Your task to perform on an android device: Add macbook pro 15 inch to the cart on amazon.com Image 0: 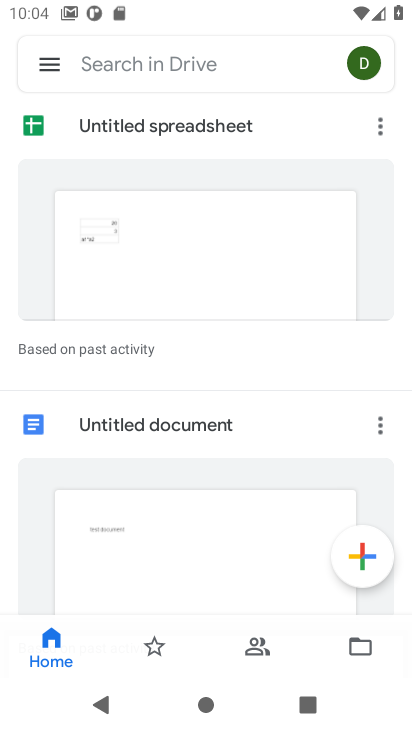
Step 0: press home button
Your task to perform on an android device: Add macbook pro 15 inch to the cart on amazon.com Image 1: 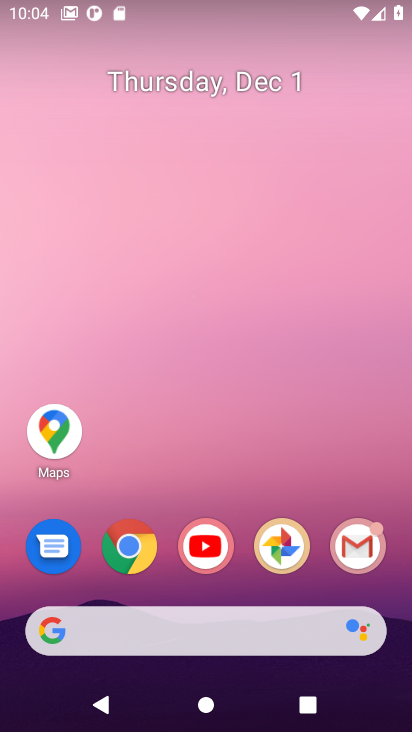
Step 1: click (121, 556)
Your task to perform on an android device: Add macbook pro 15 inch to the cart on amazon.com Image 2: 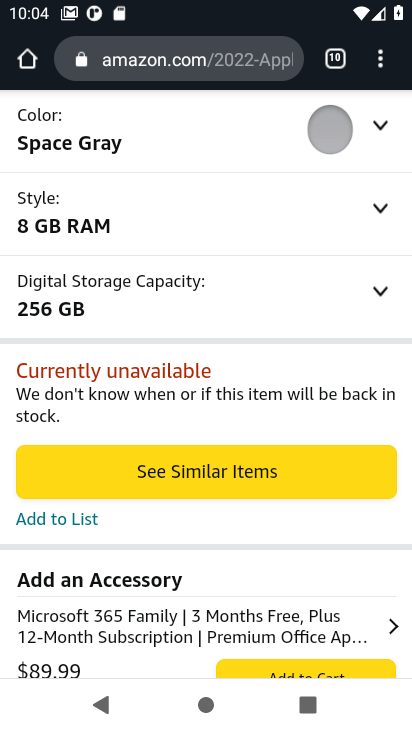
Step 2: drag from (203, 164) to (165, 500)
Your task to perform on an android device: Add macbook pro 15 inch to the cart on amazon.com Image 3: 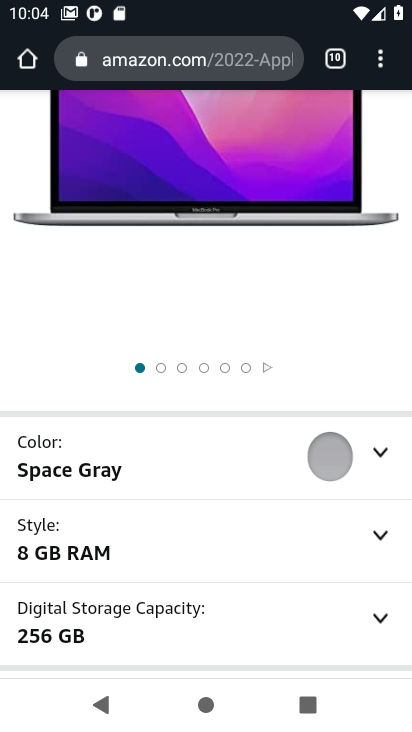
Step 3: drag from (194, 194) to (140, 565)
Your task to perform on an android device: Add macbook pro 15 inch to the cart on amazon.com Image 4: 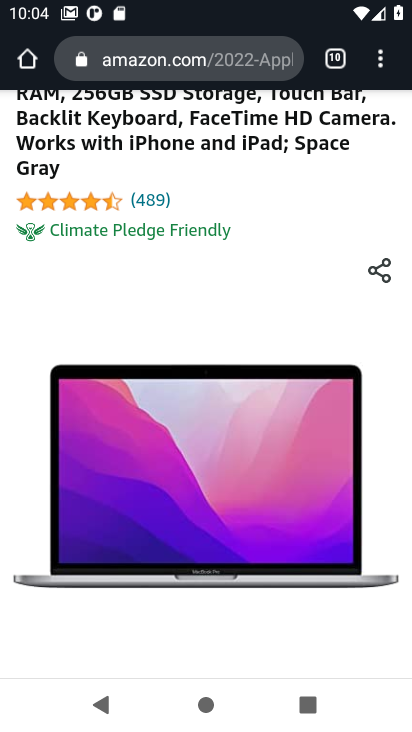
Step 4: drag from (162, 260) to (138, 473)
Your task to perform on an android device: Add macbook pro 15 inch to the cart on amazon.com Image 5: 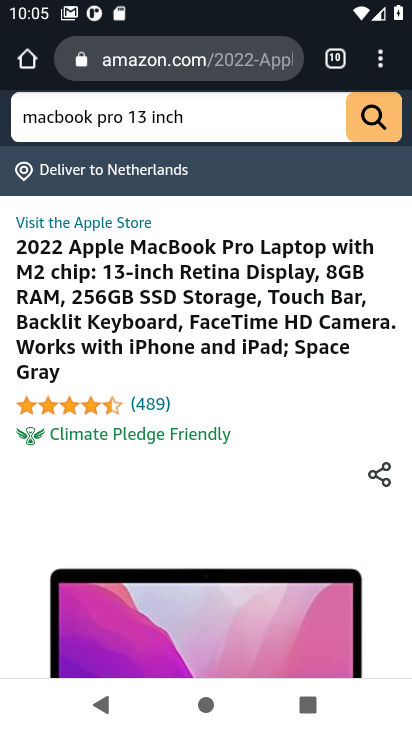
Step 5: drag from (125, 196) to (92, 383)
Your task to perform on an android device: Add macbook pro 15 inch to the cart on amazon.com Image 6: 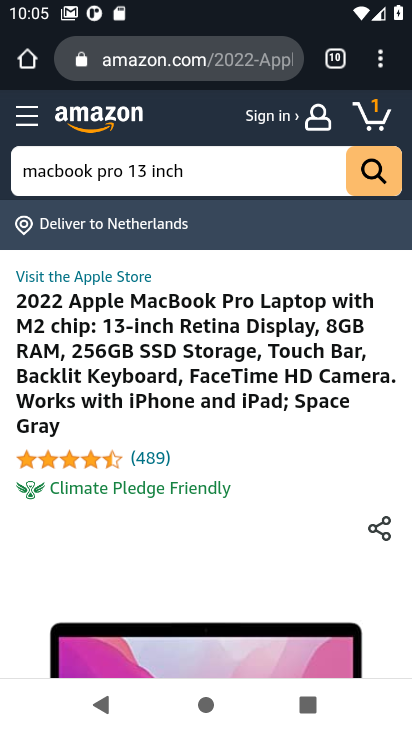
Step 6: click (201, 177)
Your task to perform on an android device: Add macbook pro 15 inch to the cart on amazon.com Image 7: 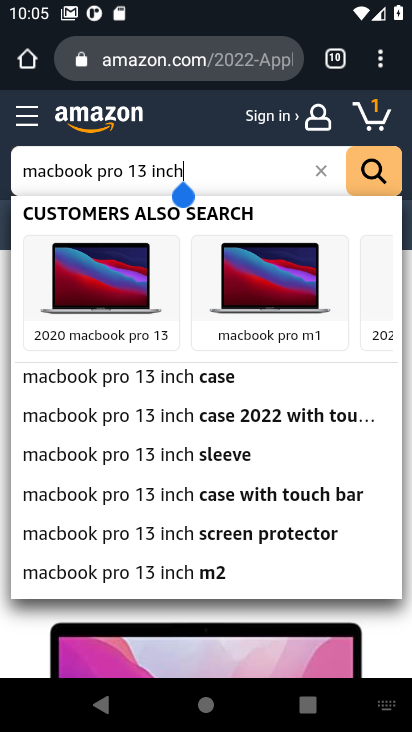
Step 7: click (322, 174)
Your task to perform on an android device: Add macbook pro 15 inch to the cart on amazon.com Image 8: 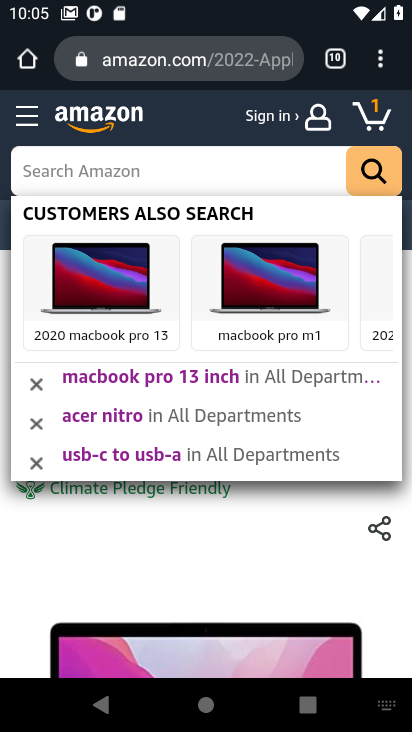
Step 8: type "macbook pro 15 inch"
Your task to perform on an android device: Add macbook pro 15 inch to the cart on amazon.com Image 9: 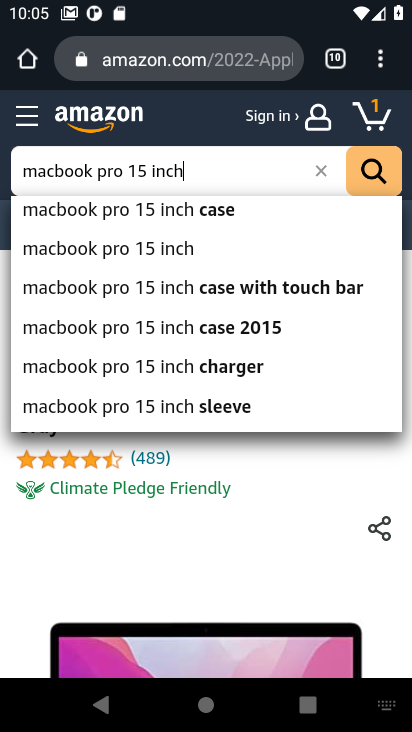
Step 9: click (118, 251)
Your task to perform on an android device: Add macbook pro 15 inch to the cart on amazon.com Image 10: 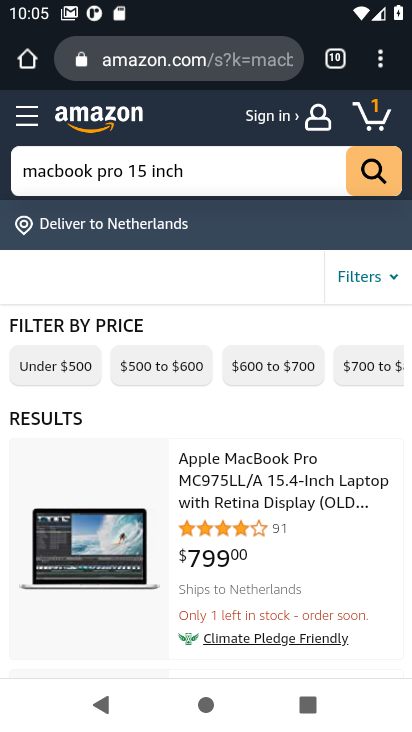
Step 10: drag from (138, 494) to (138, 341)
Your task to perform on an android device: Add macbook pro 15 inch to the cart on amazon.com Image 11: 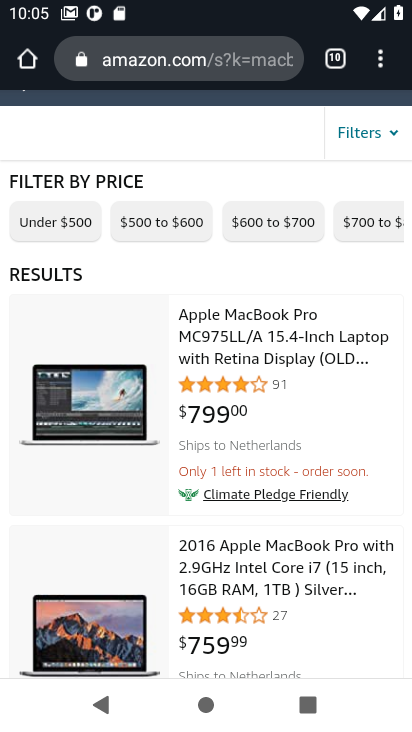
Step 11: click (245, 584)
Your task to perform on an android device: Add macbook pro 15 inch to the cart on amazon.com Image 12: 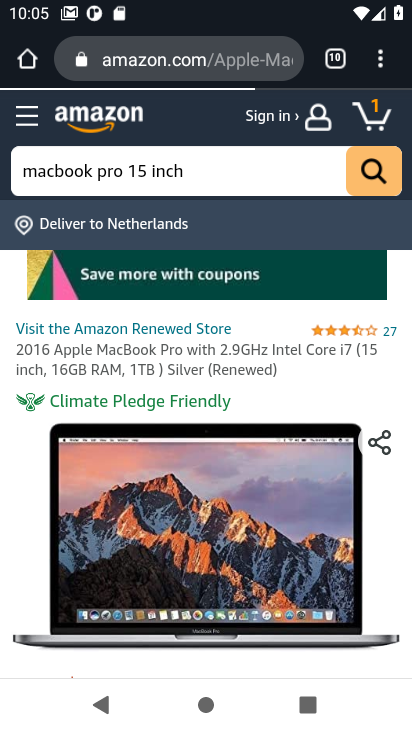
Step 12: drag from (245, 585) to (197, 141)
Your task to perform on an android device: Add macbook pro 15 inch to the cart on amazon.com Image 13: 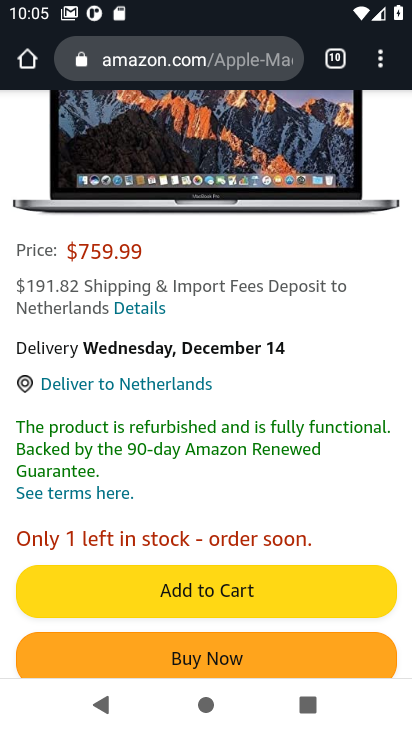
Step 13: click (188, 588)
Your task to perform on an android device: Add macbook pro 15 inch to the cart on amazon.com Image 14: 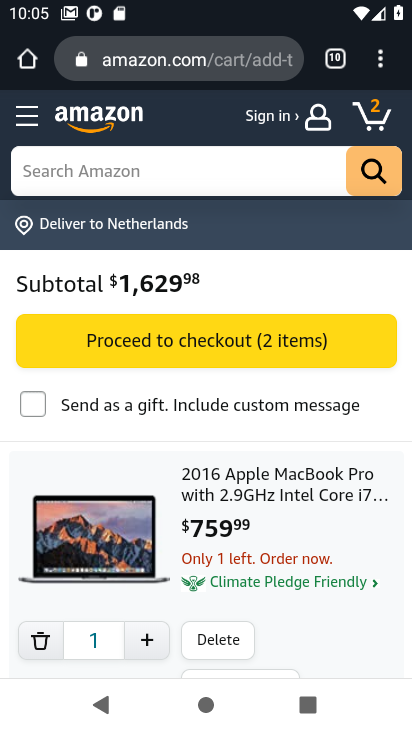
Step 14: task complete